Your task to perform on an android device: turn on improve location accuracy Image 0: 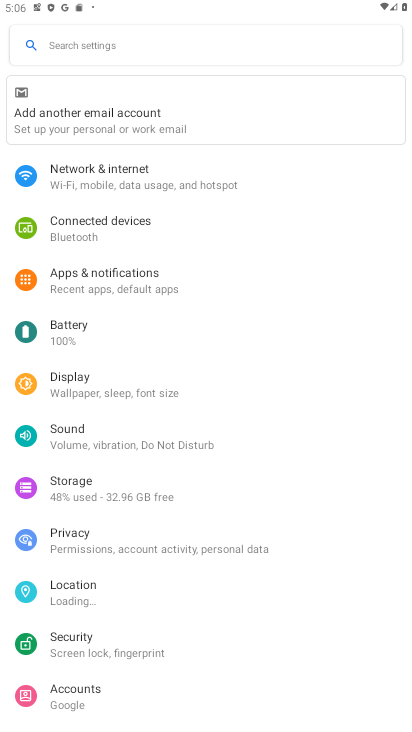
Step 0: press back button
Your task to perform on an android device: turn on improve location accuracy Image 1: 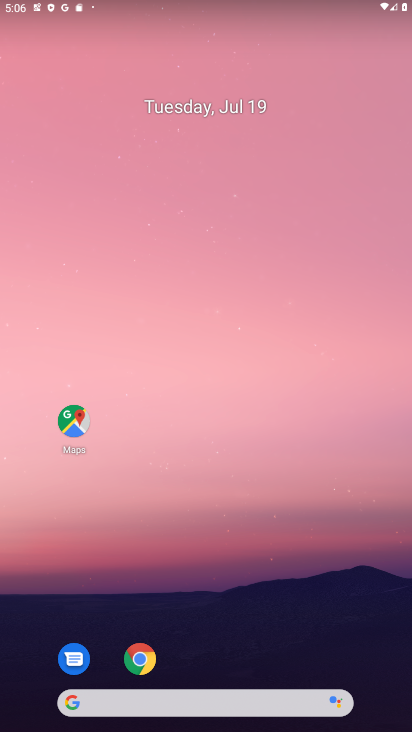
Step 1: drag from (222, 604) to (183, 97)
Your task to perform on an android device: turn on improve location accuracy Image 2: 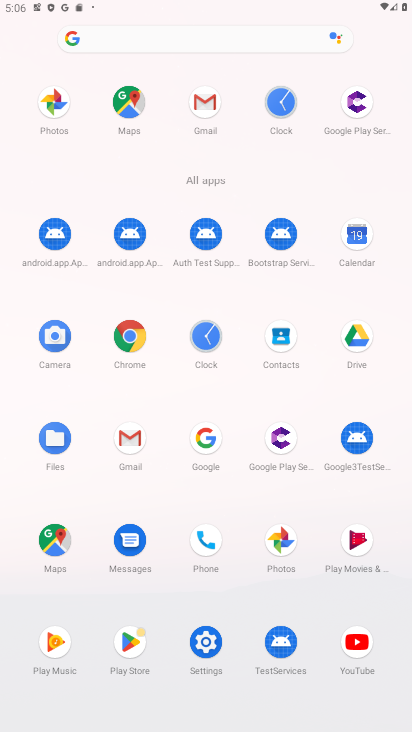
Step 2: click (195, 650)
Your task to perform on an android device: turn on improve location accuracy Image 3: 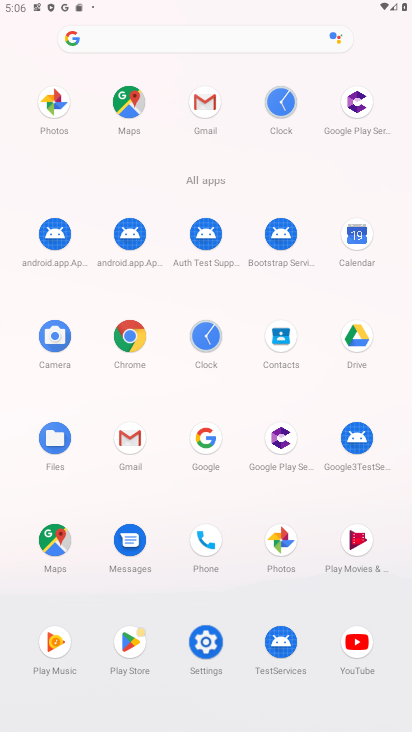
Step 3: click (198, 643)
Your task to perform on an android device: turn on improve location accuracy Image 4: 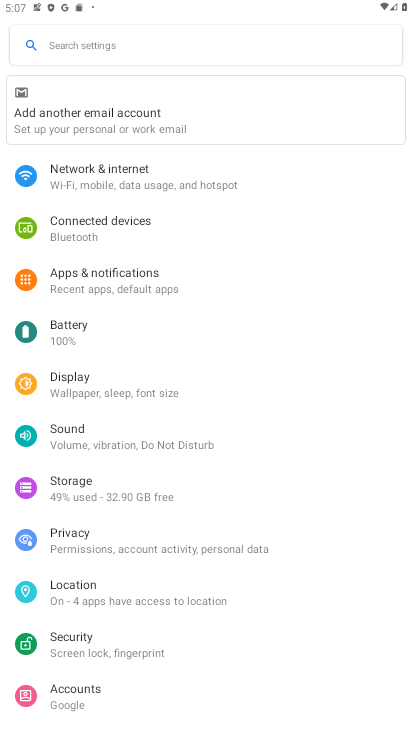
Step 4: click (80, 590)
Your task to perform on an android device: turn on improve location accuracy Image 5: 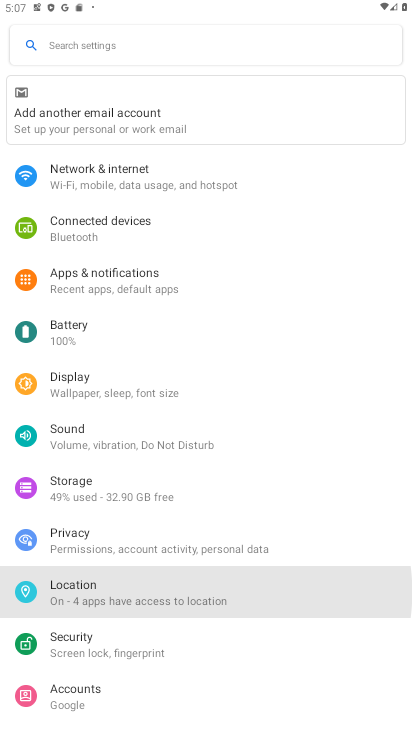
Step 5: click (93, 579)
Your task to perform on an android device: turn on improve location accuracy Image 6: 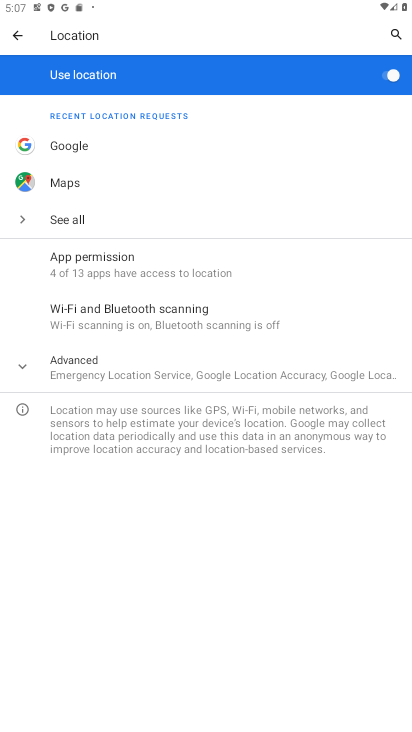
Step 6: click (98, 363)
Your task to perform on an android device: turn on improve location accuracy Image 7: 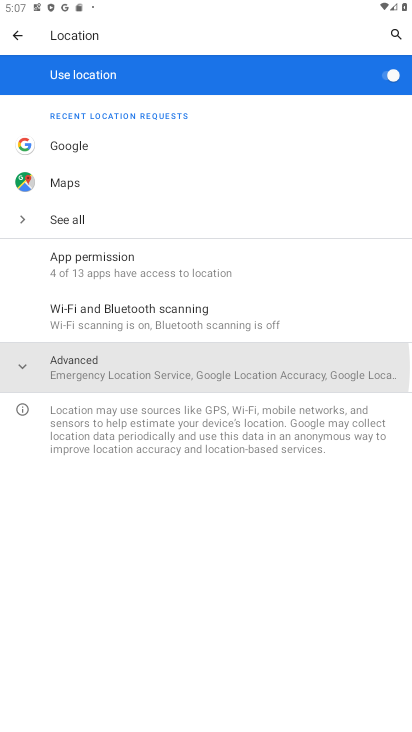
Step 7: click (98, 363)
Your task to perform on an android device: turn on improve location accuracy Image 8: 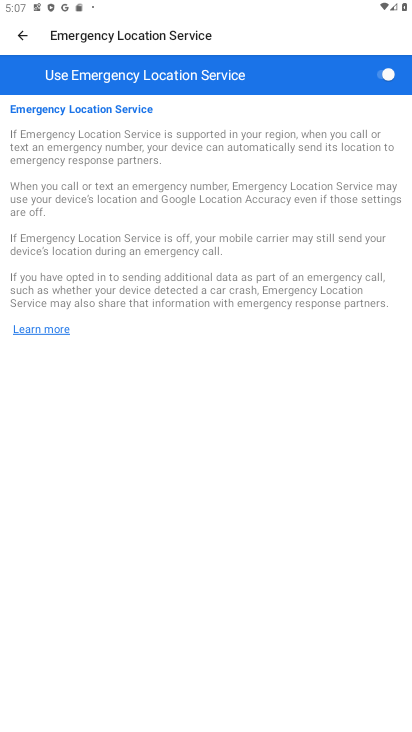
Step 8: click (13, 34)
Your task to perform on an android device: turn on improve location accuracy Image 9: 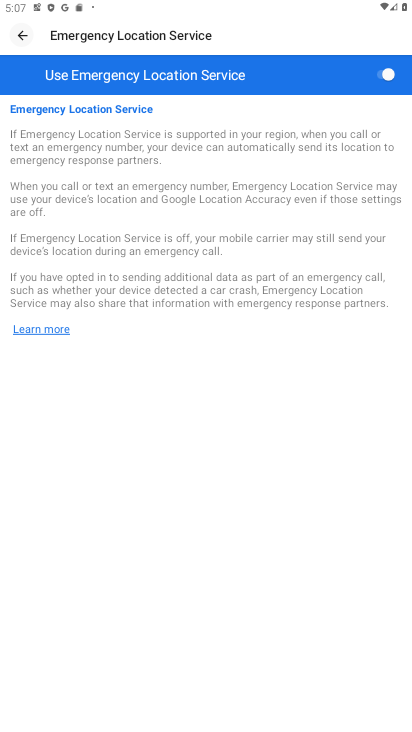
Step 9: click (13, 34)
Your task to perform on an android device: turn on improve location accuracy Image 10: 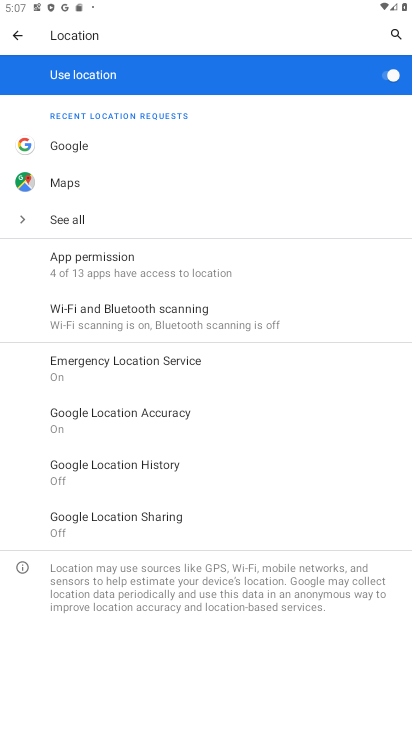
Step 10: click (138, 408)
Your task to perform on an android device: turn on improve location accuracy Image 11: 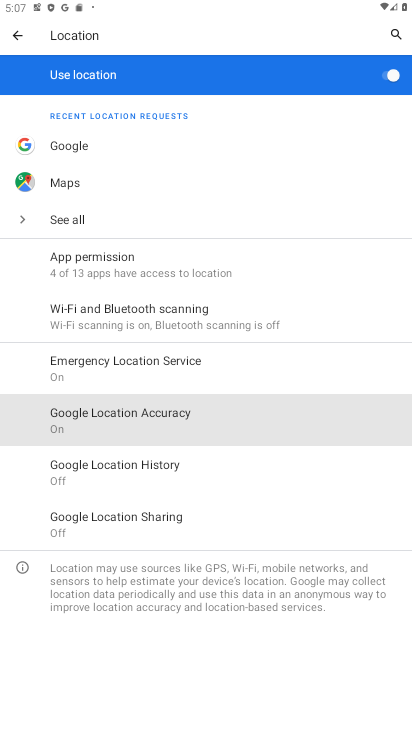
Step 11: click (138, 408)
Your task to perform on an android device: turn on improve location accuracy Image 12: 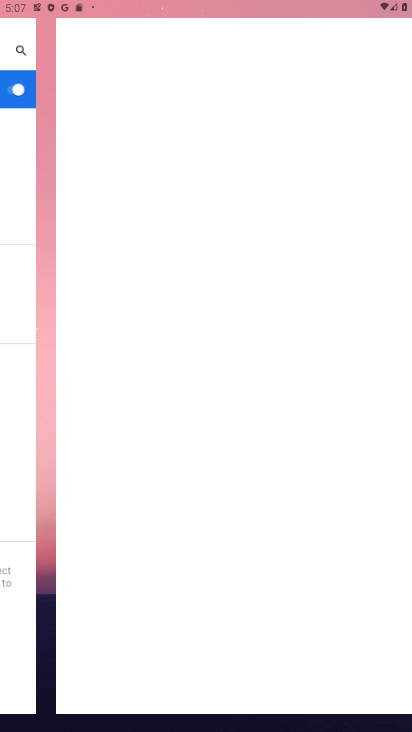
Step 12: click (137, 409)
Your task to perform on an android device: turn on improve location accuracy Image 13: 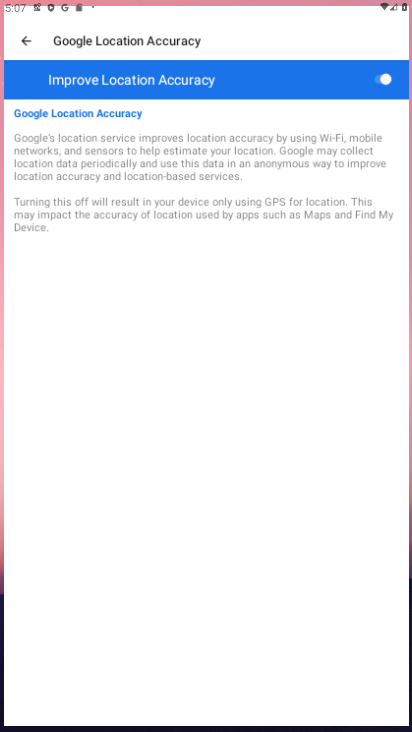
Step 13: click (117, 416)
Your task to perform on an android device: turn on improve location accuracy Image 14: 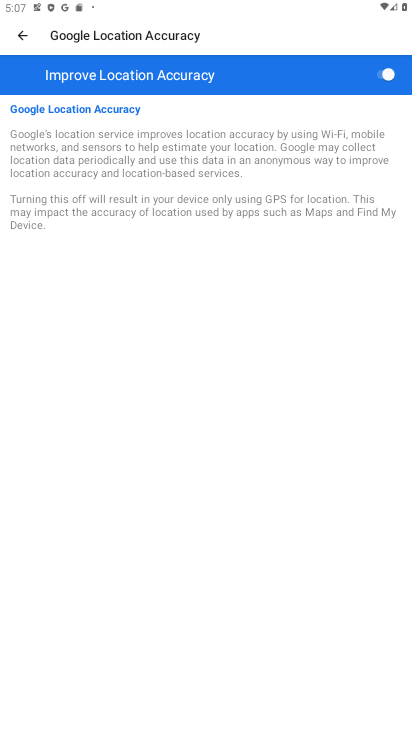
Step 14: task complete